Your task to perform on an android device: Open the stopwatch Image 0: 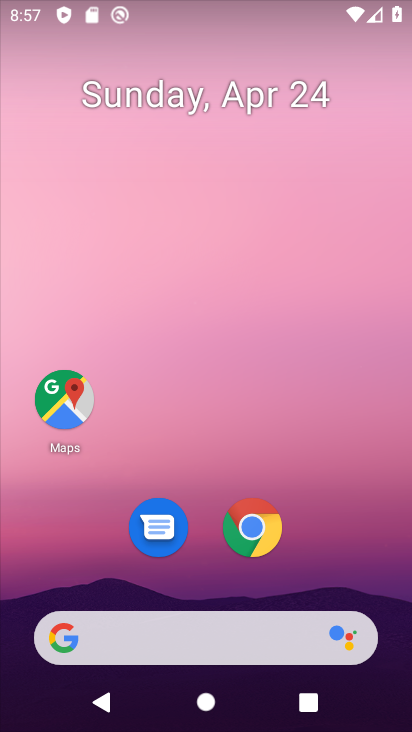
Step 0: drag from (386, 612) to (253, 191)
Your task to perform on an android device: Open the stopwatch Image 1: 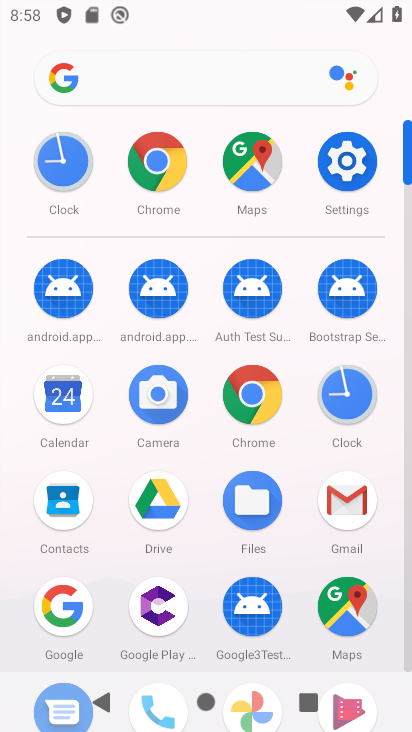
Step 1: click (343, 388)
Your task to perform on an android device: Open the stopwatch Image 2: 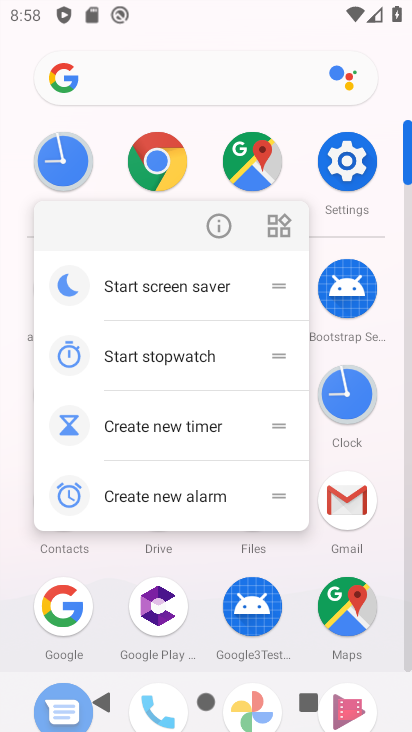
Step 2: click (342, 387)
Your task to perform on an android device: Open the stopwatch Image 3: 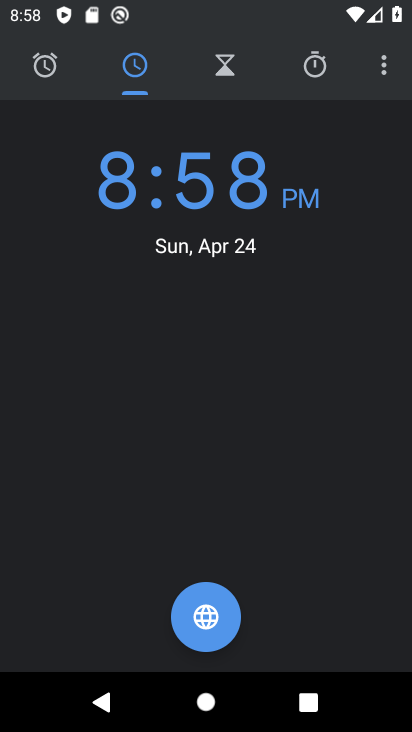
Step 3: click (307, 60)
Your task to perform on an android device: Open the stopwatch Image 4: 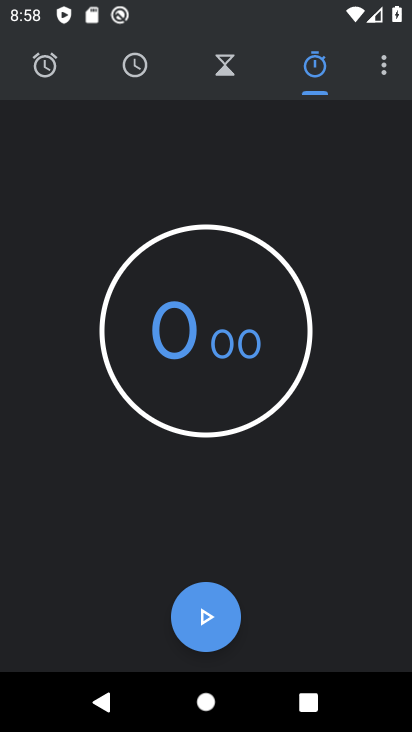
Step 4: task complete